Your task to perform on an android device: set the timer Image 0: 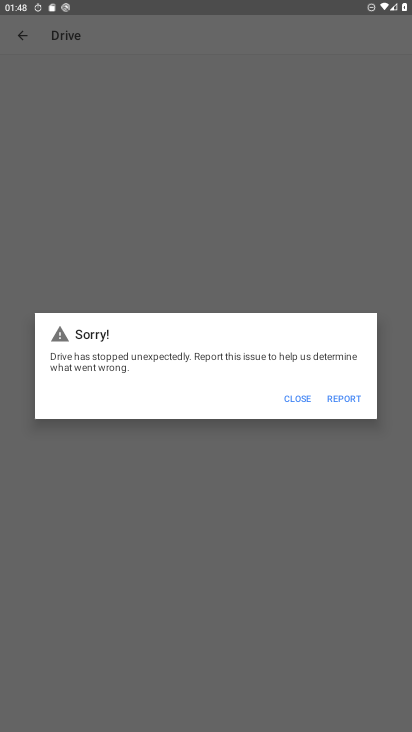
Step 0: press home button
Your task to perform on an android device: set the timer Image 1: 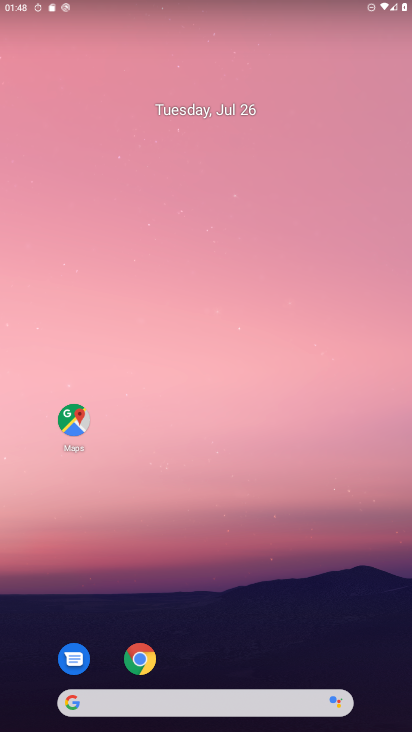
Step 1: drag from (217, 377) to (349, 29)
Your task to perform on an android device: set the timer Image 2: 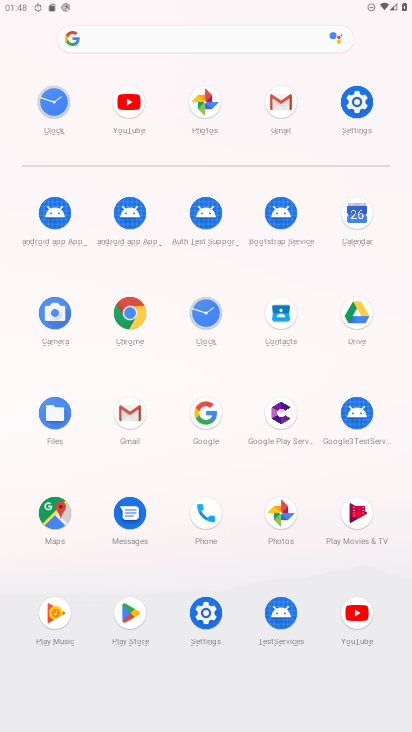
Step 2: click (212, 331)
Your task to perform on an android device: set the timer Image 3: 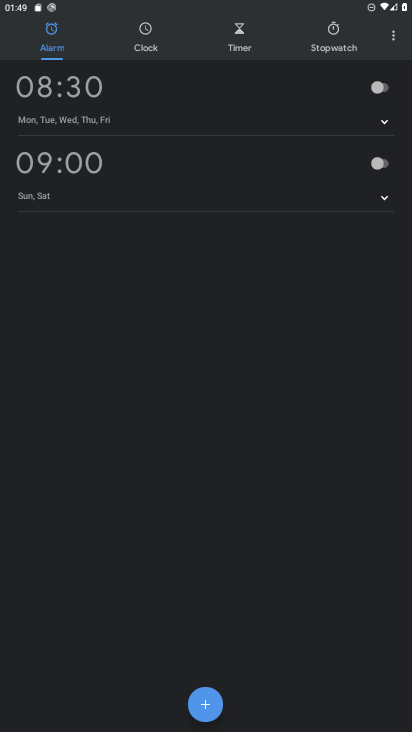
Step 3: click (226, 45)
Your task to perform on an android device: set the timer Image 4: 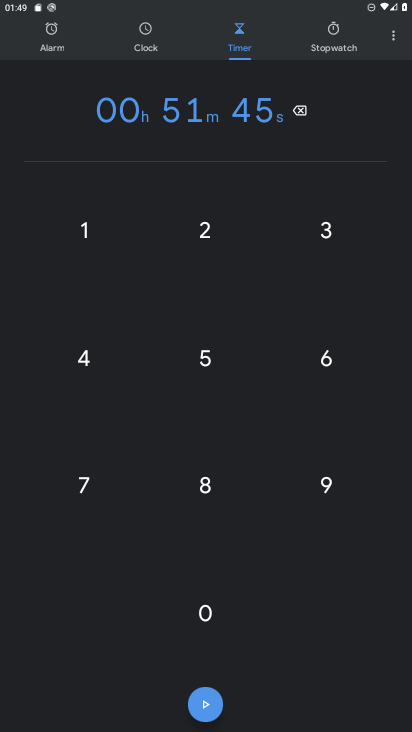
Step 4: click (188, 359)
Your task to perform on an android device: set the timer Image 5: 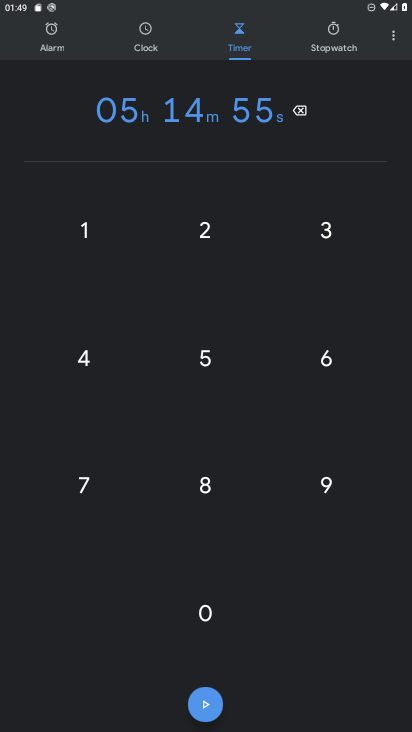
Step 5: task complete